Your task to perform on an android device: star an email in the gmail app Image 0: 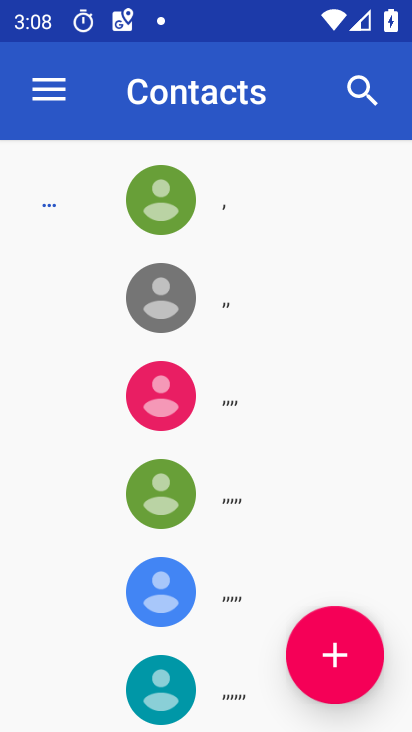
Step 0: press home button
Your task to perform on an android device: star an email in the gmail app Image 1: 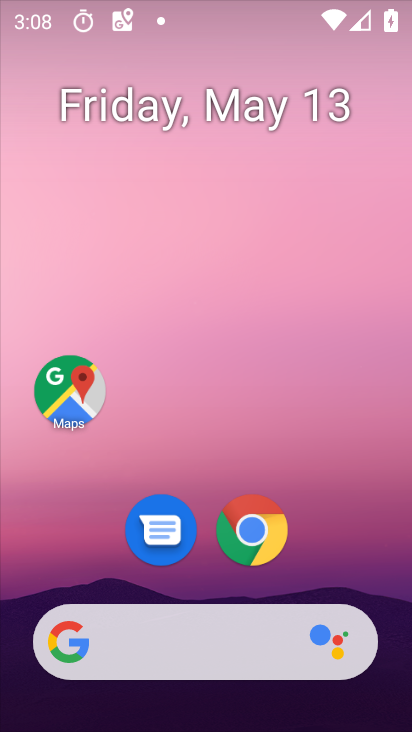
Step 1: drag from (355, 549) to (332, 201)
Your task to perform on an android device: star an email in the gmail app Image 2: 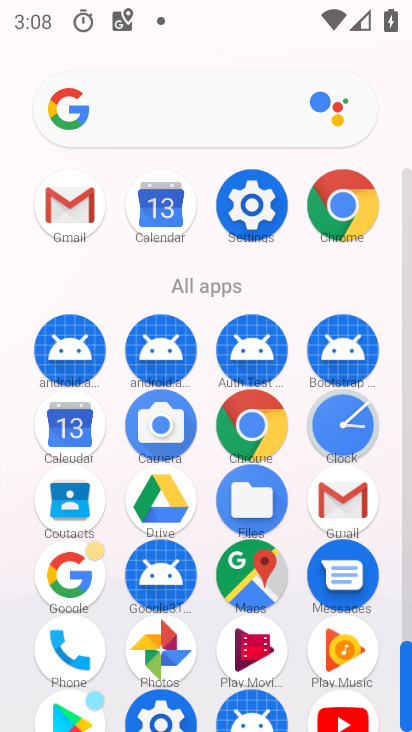
Step 2: click (59, 191)
Your task to perform on an android device: star an email in the gmail app Image 3: 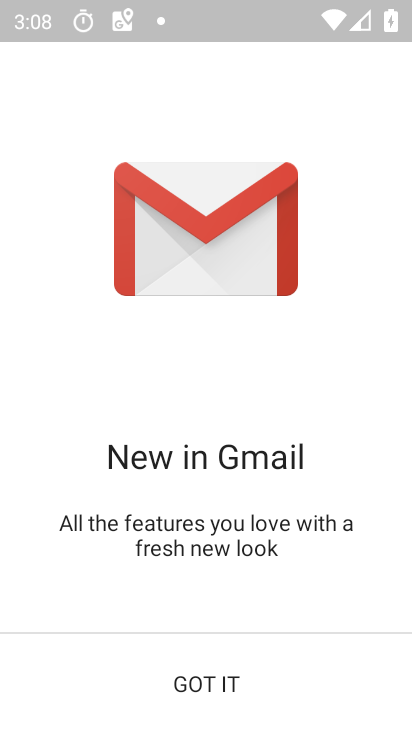
Step 3: click (261, 661)
Your task to perform on an android device: star an email in the gmail app Image 4: 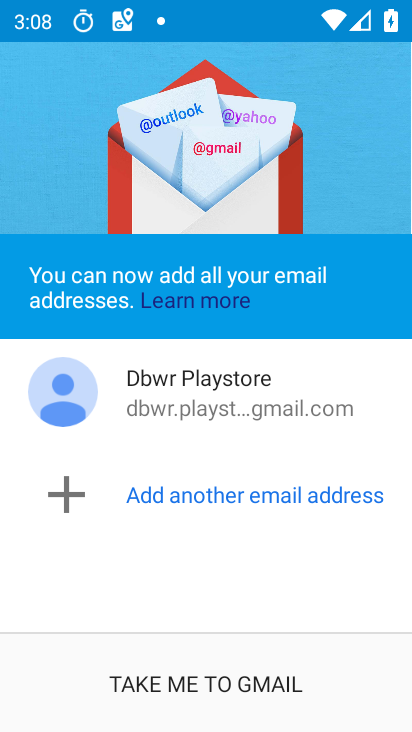
Step 4: click (221, 672)
Your task to perform on an android device: star an email in the gmail app Image 5: 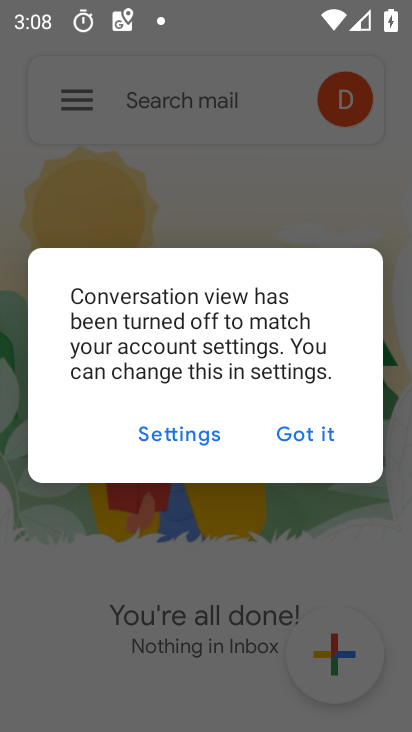
Step 5: click (301, 428)
Your task to perform on an android device: star an email in the gmail app Image 6: 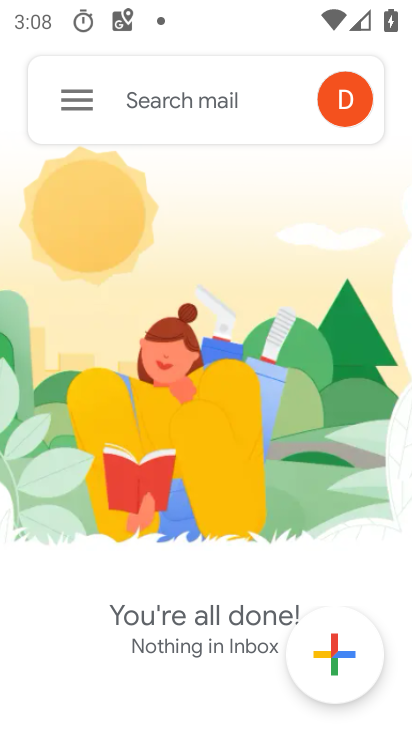
Step 6: click (67, 78)
Your task to perform on an android device: star an email in the gmail app Image 7: 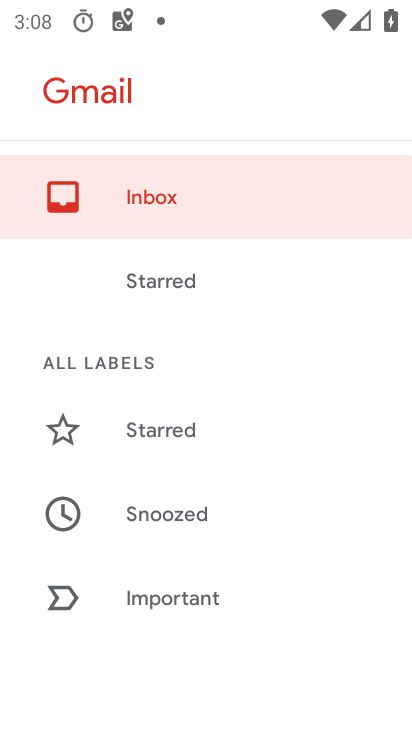
Step 7: drag from (229, 562) to (309, 125)
Your task to perform on an android device: star an email in the gmail app Image 8: 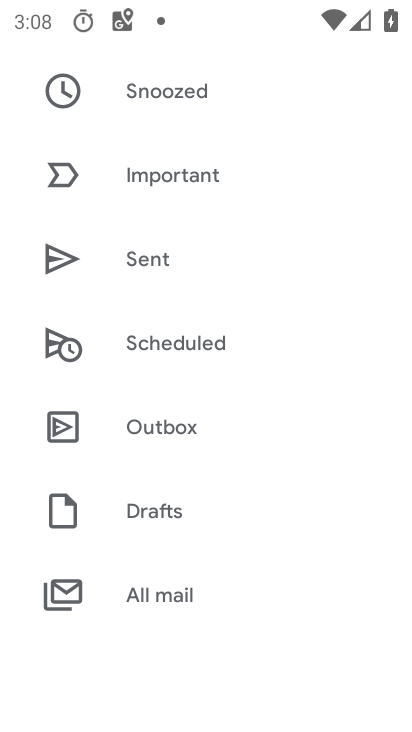
Step 8: click (162, 586)
Your task to perform on an android device: star an email in the gmail app Image 9: 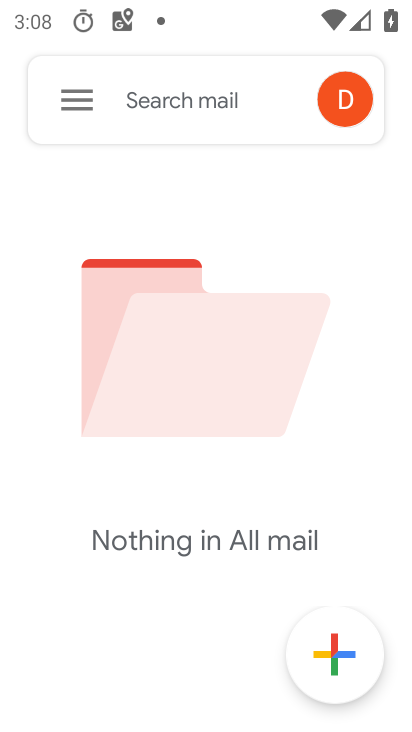
Step 9: task complete